Your task to perform on an android device: turn off sleep mode Image 0: 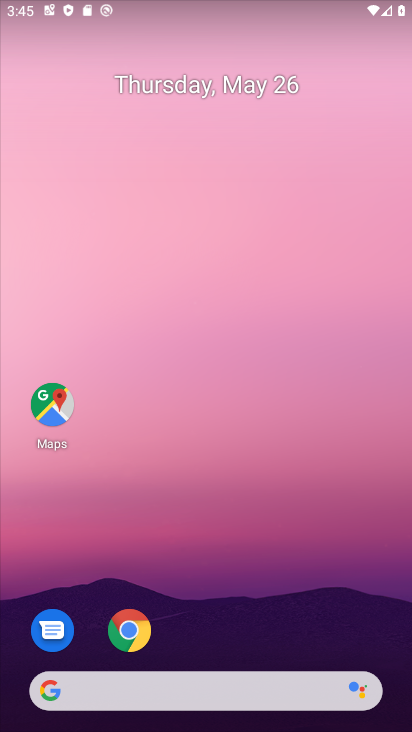
Step 0: drag from (230, 593) to (227, 201)
Your task to perform on an android device: turn off sleep mode Image 1: 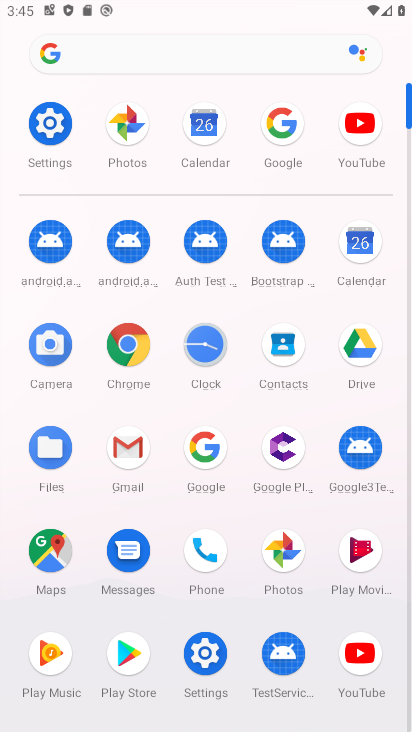
Step 1: click (47, 124)
Your task to perform on an android device: turn off sleep mode Image 2: 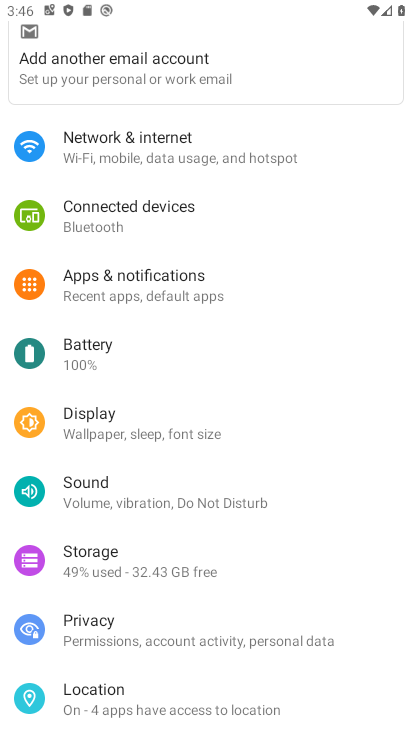
Step 2: click (182, 449)
Your task to perform on an android device: turn off sleep mode Image 3: 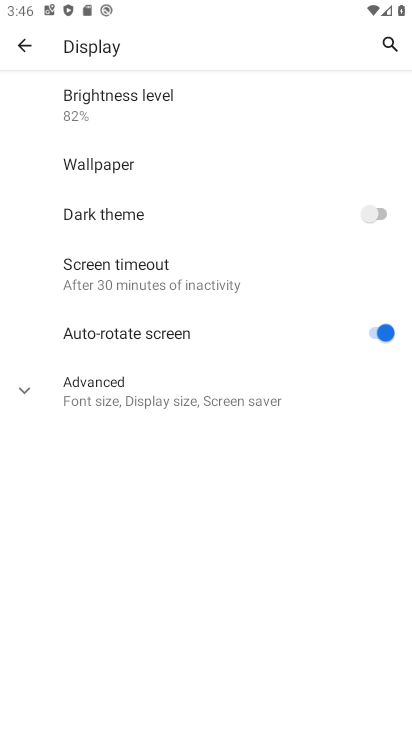
Step 3: click (127, 402)
Your task to perform on an android device: turn off sleep mode Image 4: 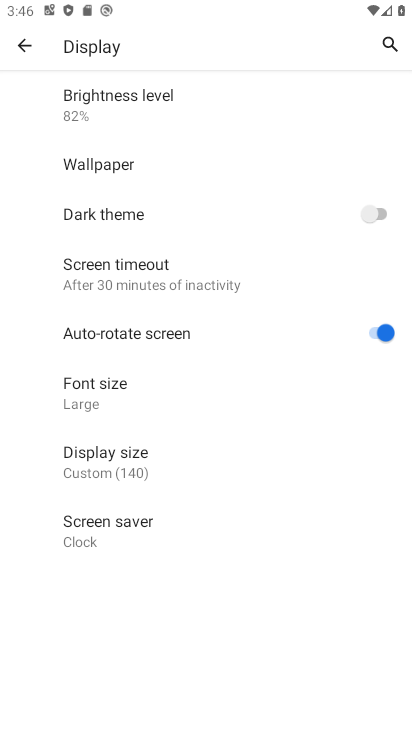
Step 4: click (156, 292)
Your task to perform on an android device: turn off sleep mode Image 5: 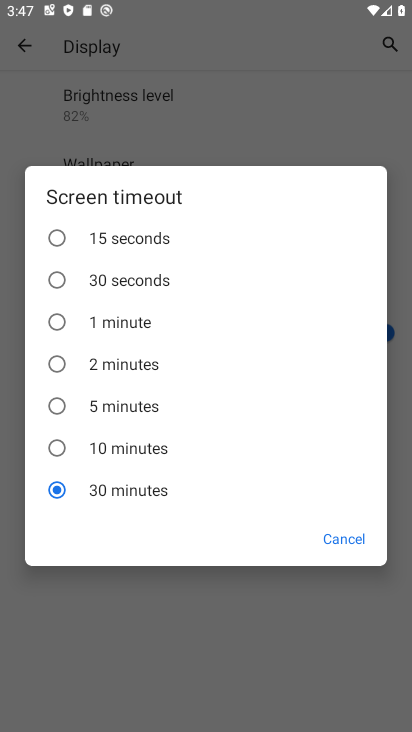
Step 5: click (333, 542)
Your task to perform on an android device: turn off sleep mode Image 6: 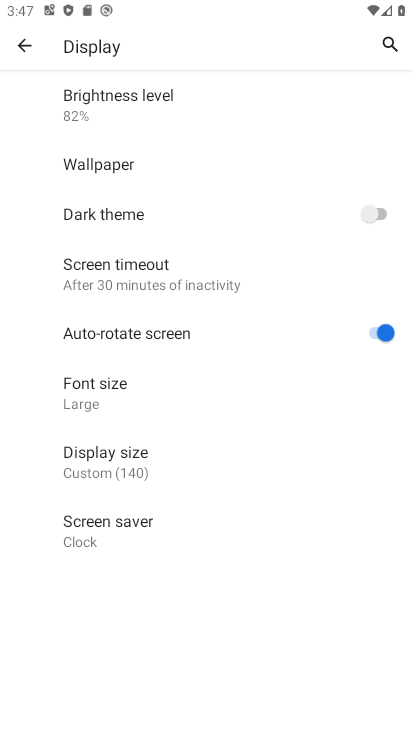
Step 6: task complete